Your task to perform on an android device: change keyboard looks Image 0: 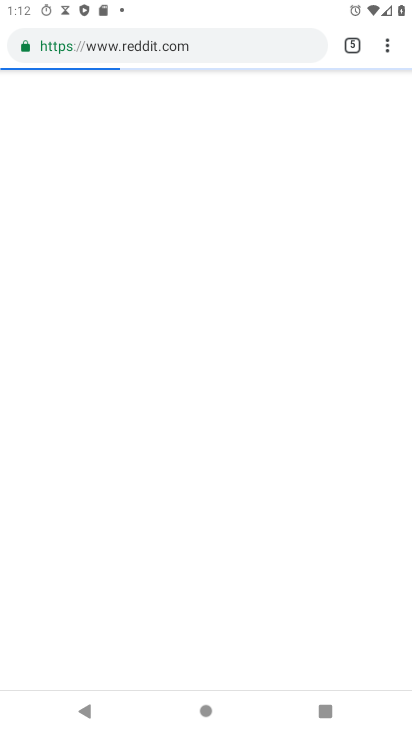
Step 0: press home button
Your task to perform on an android device: change keyboard looks Image 1: 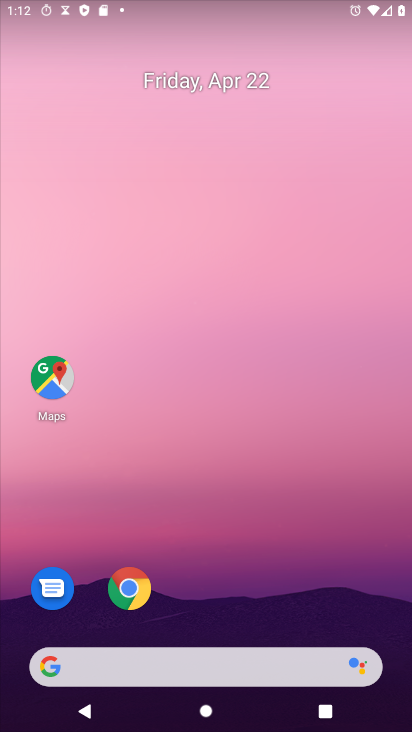
Step 1: drag from (245, 669) to (405, 87)
Your task to perform on an android device: change keyboard looks Image 2: 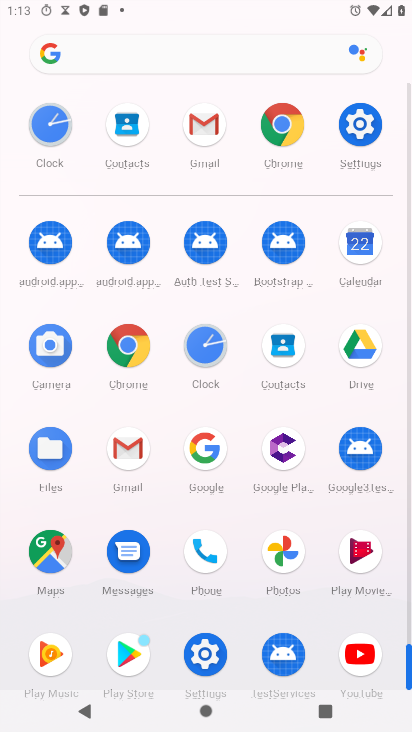
Step 2: click (361, 115)
Your task to perform on an android device: change keyboard looks Image 3: 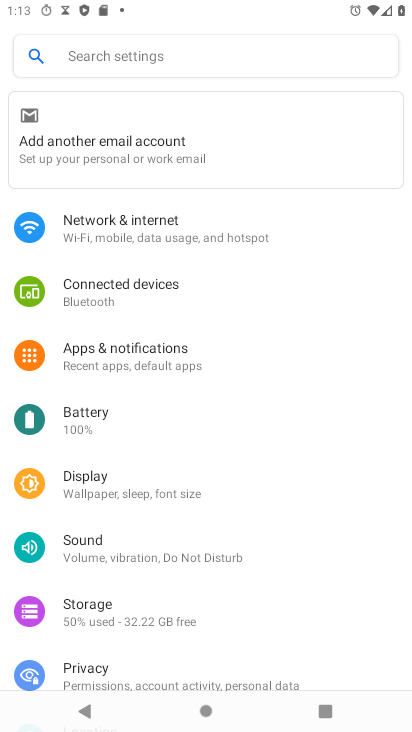
Step 3: click (241, 56)
Your task to perform on an android device: change keyboard looks Image 4: 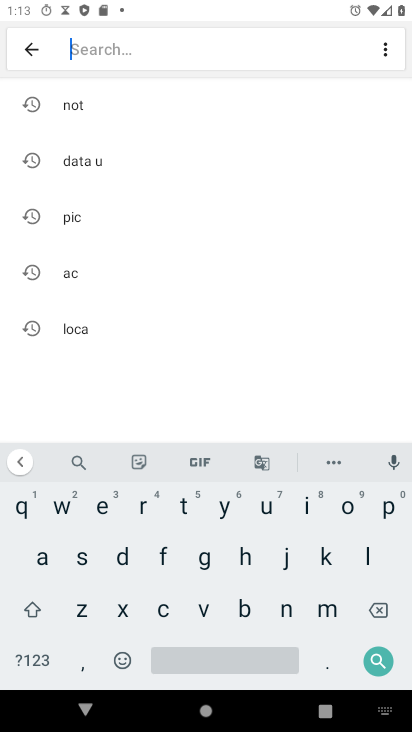
Step 4: click (320, 560)
Your task to perform on an android device: change keyboard looks Image 5: 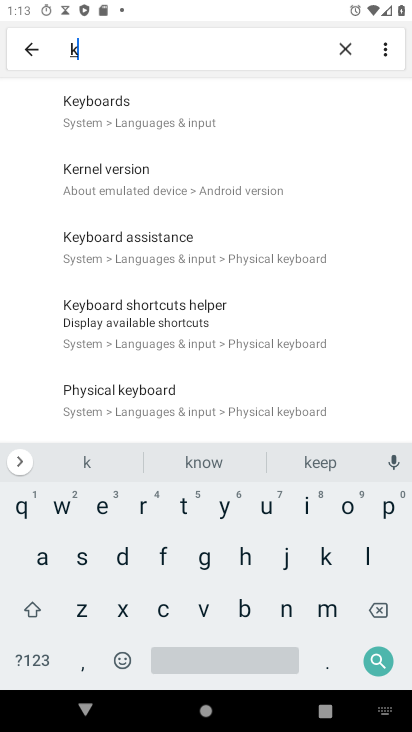
Step 5: click (100, 508)
Your task to perform on an android device: change keyboard looks Image 6: 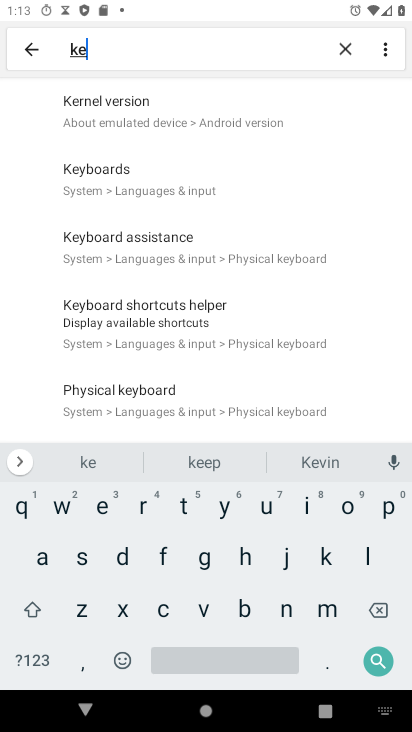
Step 6: click (150, 173)
Your task to perform on an android device: change keyboard looks Image 7: 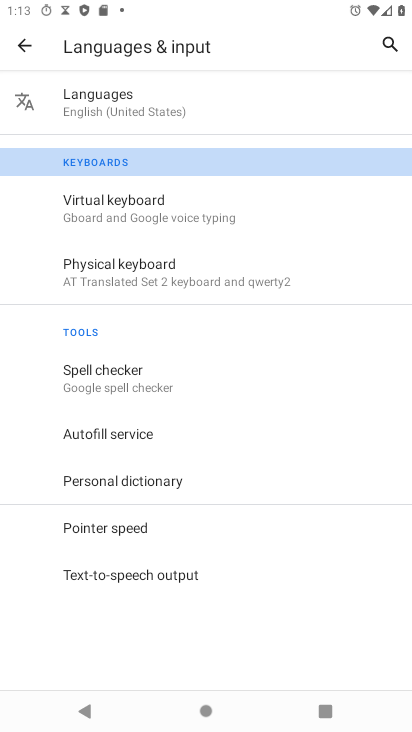
Step 7: click (129, 202)
Your task to perform on an android device: change keyboard looks Image 8: 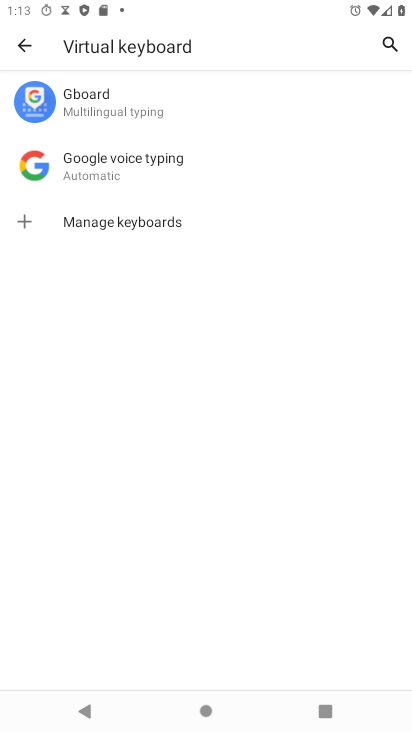
Step 8: click (101, 117)
Your task to perform on an android device: change keyboard looks Image 9: 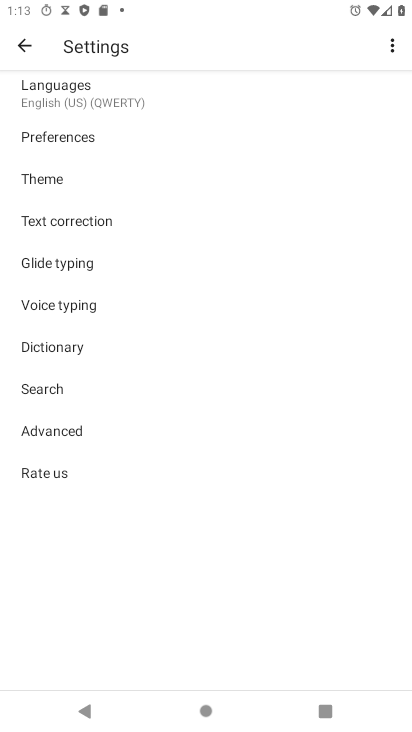
Step 9: click (78, 185)
Your task to perform on an android device: change keyboard looks Image 10: 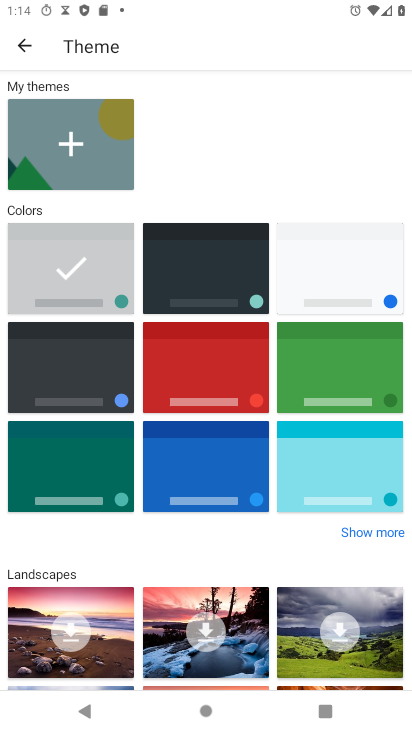
Step 10: click (212, 447)
Your task to perform on an android device: change keyboard looks Image 11: 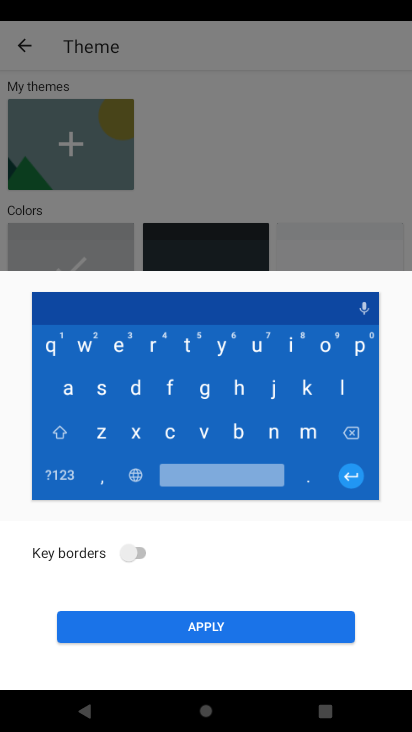
Step 11: click (139, 548)
Your task to perform on an android device: change keyboard looks Image 12: 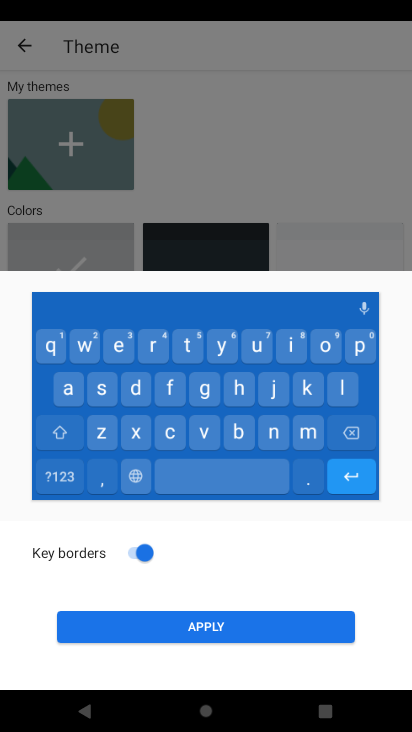
Step 12: click (176, 636)
Your task to perform on an android device: change keyboard looks Image 13: 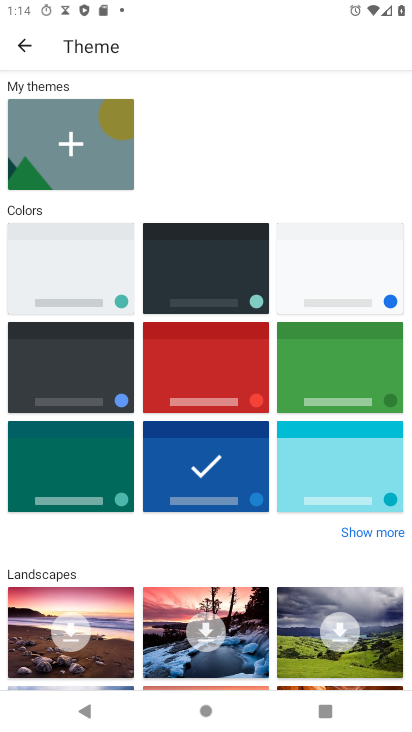
Step 13: task complete